Your task to perform on an android device: visit the assistant section in the google photos Image 0: 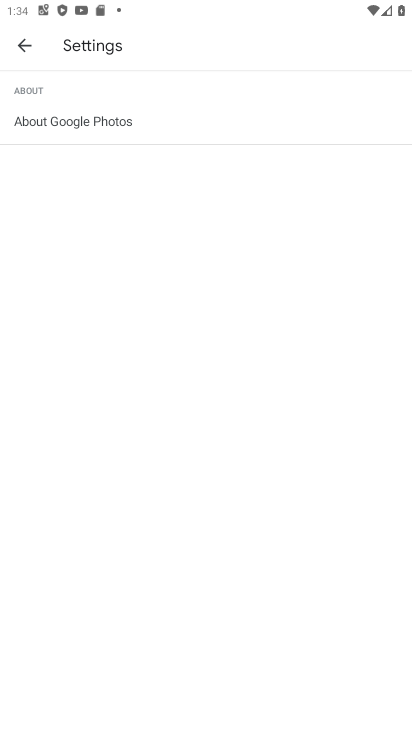
Step 0: press home button
Your task to perform on an android device: visit the assistant section in the google photos Image 1: 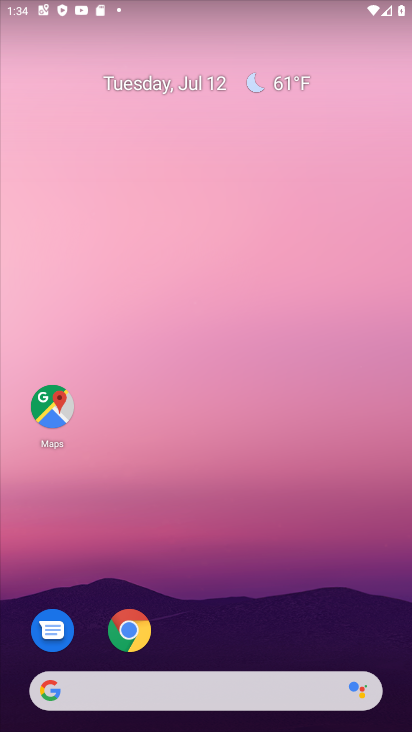
Step 1: drag from (184, 650) to (197, 249)
Your task to perform on an android device: visit the assistant section in the google photos Image 2: 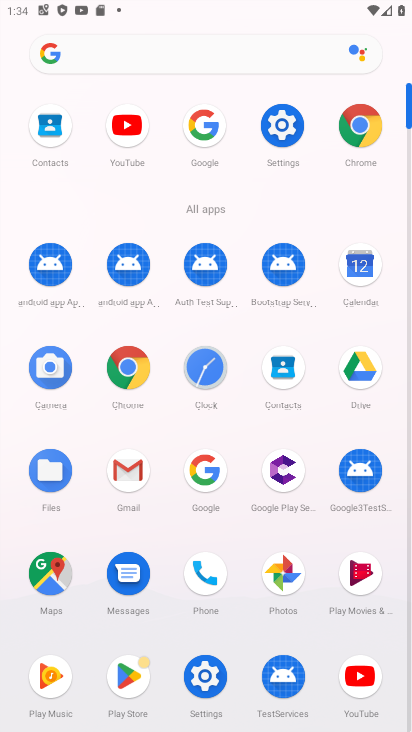
Step 2: click (290, 583)
Your task to perform on an android device: visit the assistant section in the google photos Image 3: 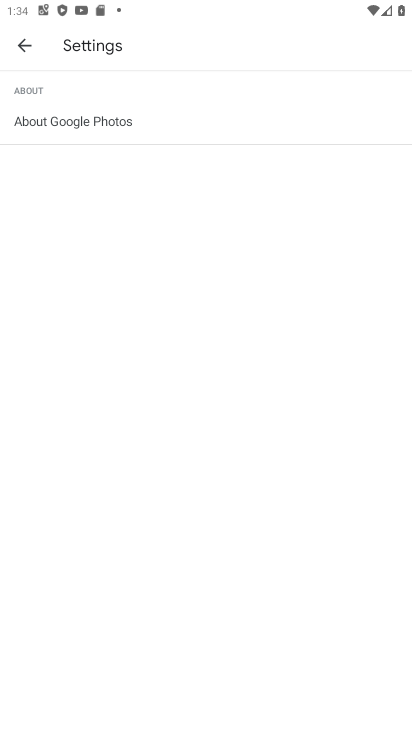
Step 3: click (32, 39)
Your task to perform on an android device: visit the assistant section in the google photos Image 4: 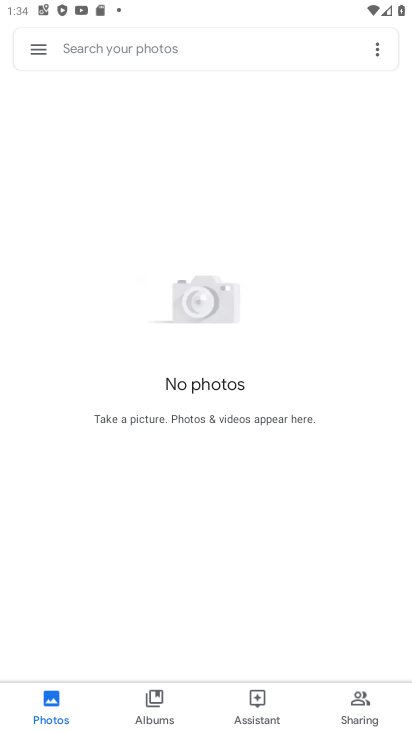
Step 4: click (246, 703)
Your task to perform on an android device: visit the assistant section in the google photos Image 5: 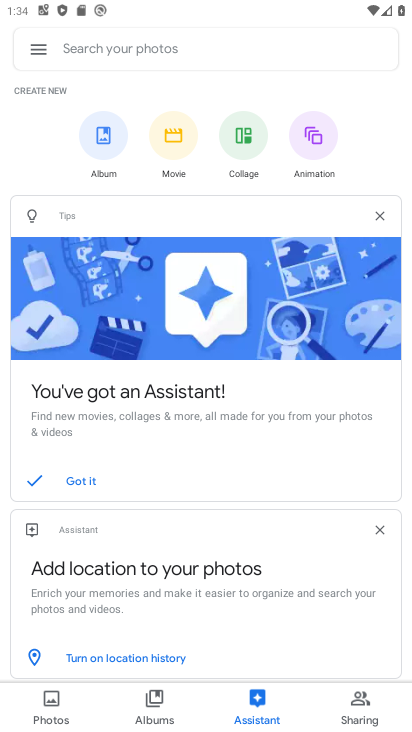
Step 5: task complete